Your task to perform on an android device: toggle priority inbox in the gmail app Image 0: 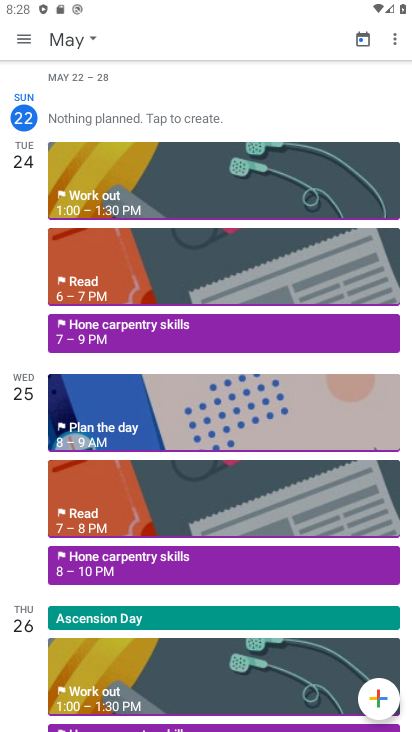
Step 0: press home button
Your task to perform on an android device: toggle priority inbox in the gmail app Image 1: 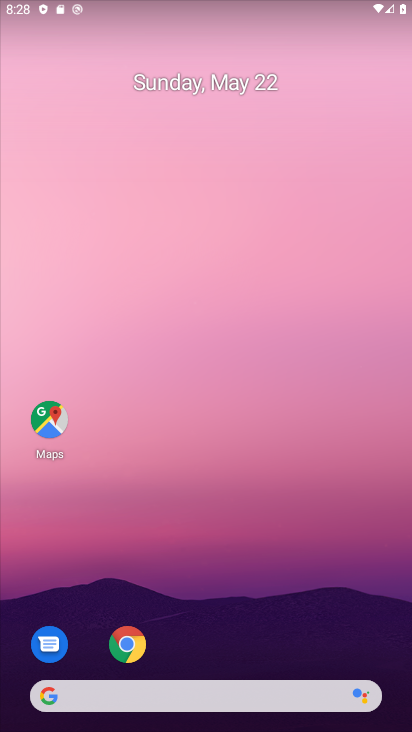
Step 1: drag from (224, 697) to (198, 16)
Your task to perform on an android device: toggle priority inbox in the gmail app Image 2: 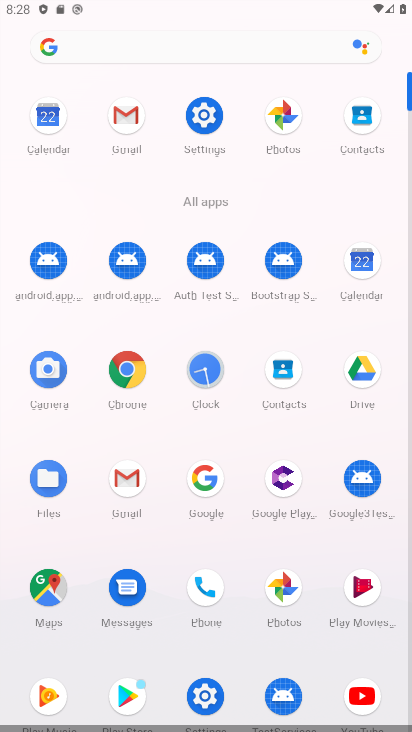
Step 2: click (127, 484)
Your task to perform on an android device: toggle priority inbox in the gmail app Image 3: 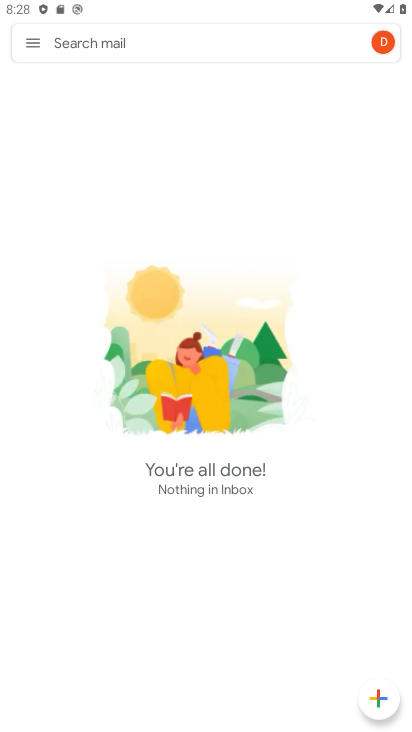
Step 3: click (31, 39)
Your task to perform on an android device: toggle priority inbox in the gmail app Image 4: 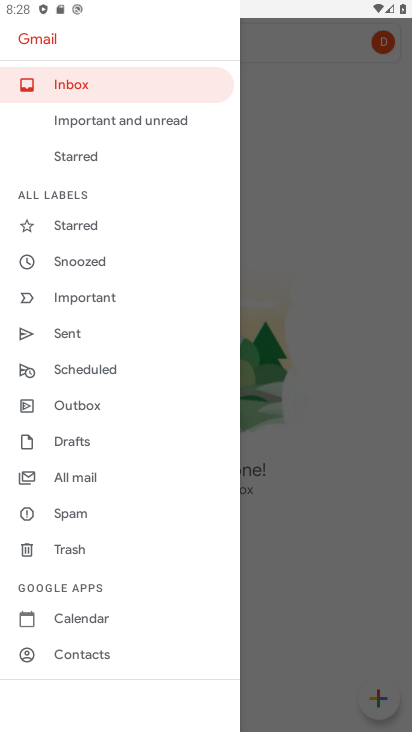
Step 4: drag from (105, 562) to (92, 148)
Your task to perform on an android device: toggle priority inbox in the gmail app Image 5: 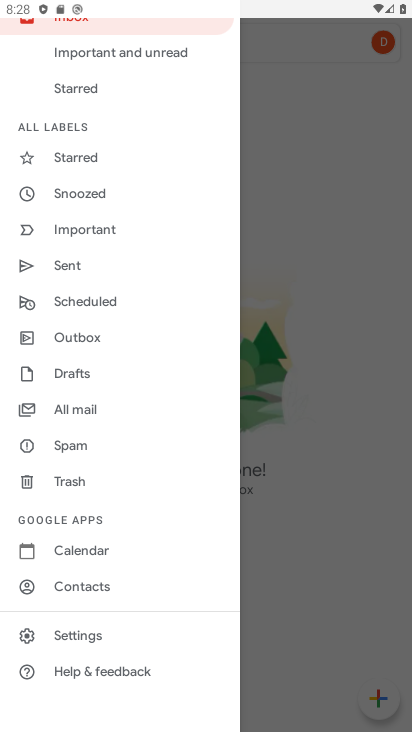
Step 5: click (94, 636)
Your task to perform on an android device: toggle priority inbox in the gmail app Image 6: 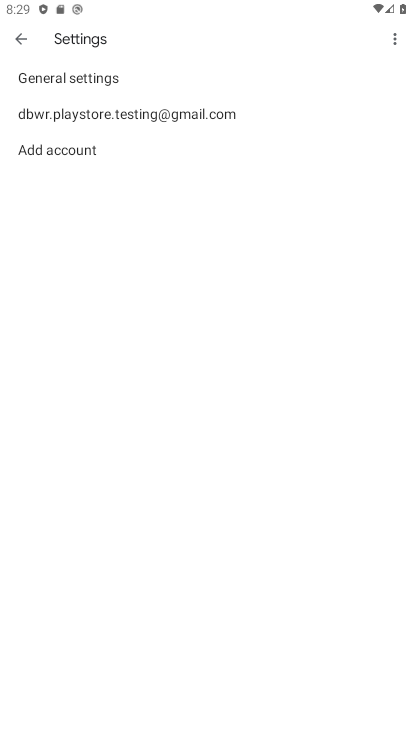
Step 6: click (206, 116)
Your task to perform on an android device: toggle priority inbox in the gmail app Image 7: 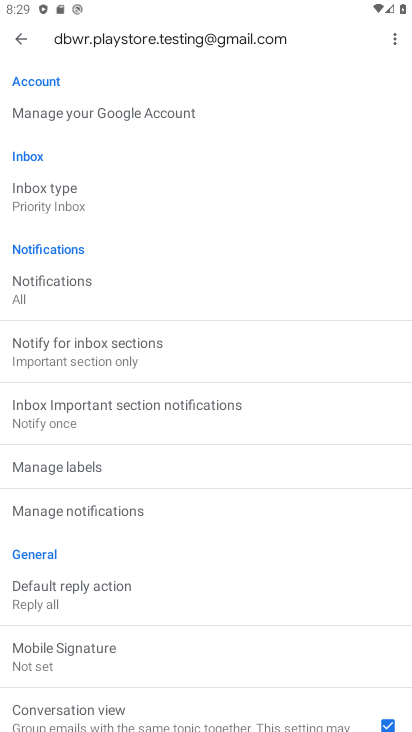
Step 7: click (65, 208)
Your task to perform on an android device: toggle priority inbox in the gmail app Image 8: 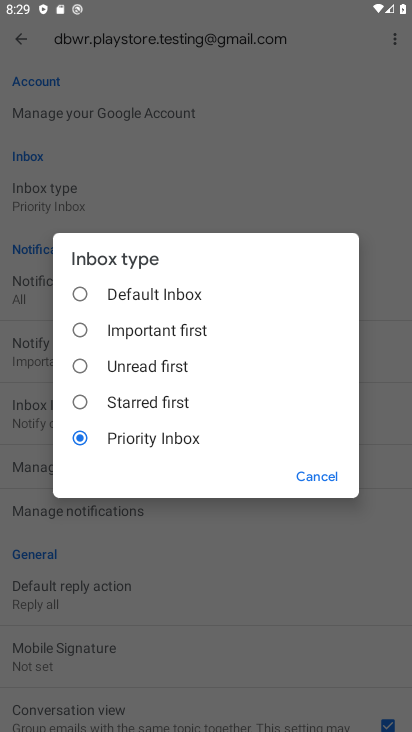
Step 8: click (172, 429)
Your task to perform on an android device: toggle priority inbox in the gmail app Image 9: 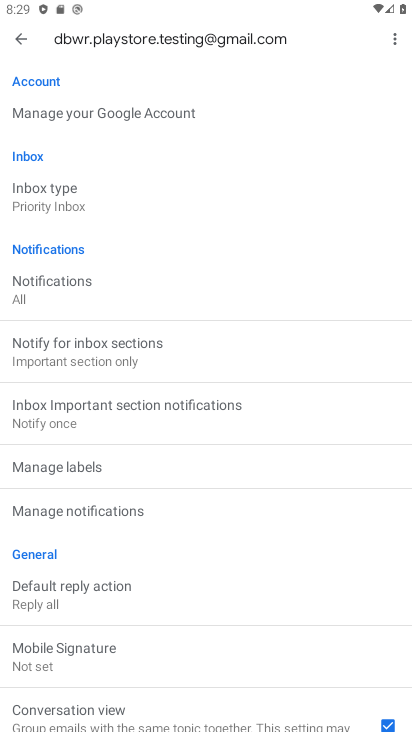
Step 9: task complete